Your task to perform on an android device: Open the web browser Image 0: 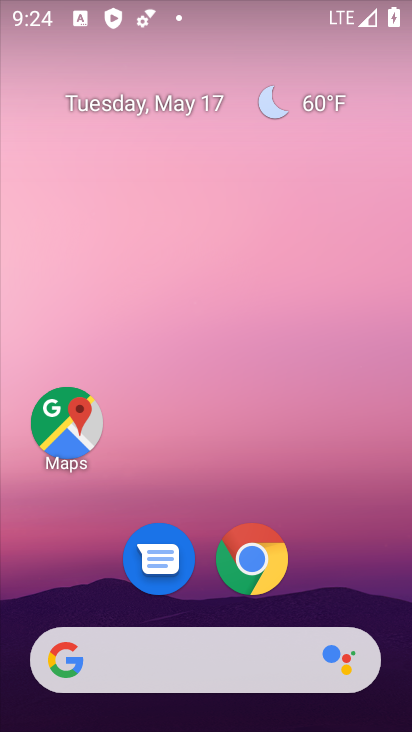
Step 0: click (245, 574)
Your task to perform on an android device: Open the web browser Image 1: 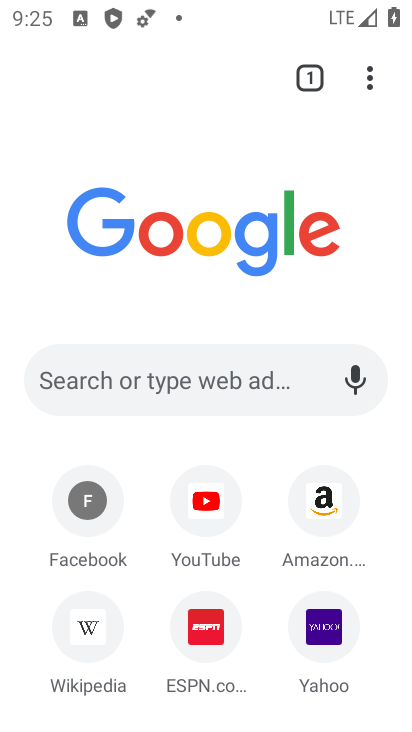
Step 1: task complete